Your task to perform on an android device: empty trash in the gmail app Image 0: 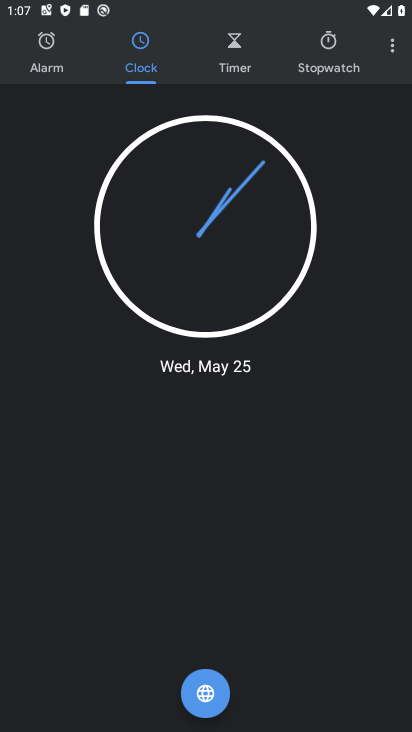
Step 0: press back button
Your task to perform on an android device: empty trash in the gmail app Image 1: 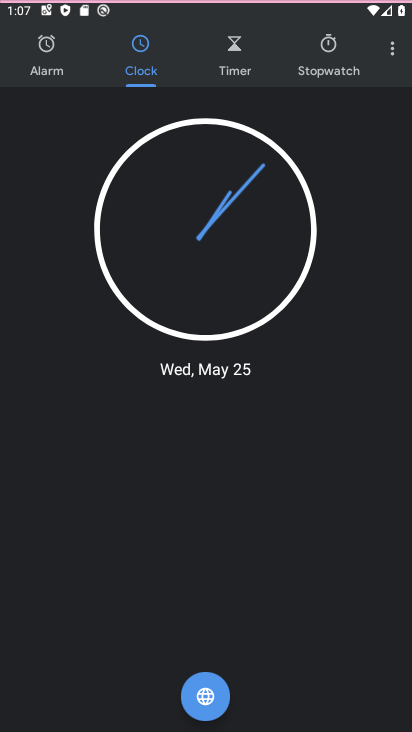
Step 1: press back button
Your task to perform on an android device: empty trash in the gmail app Image 2: 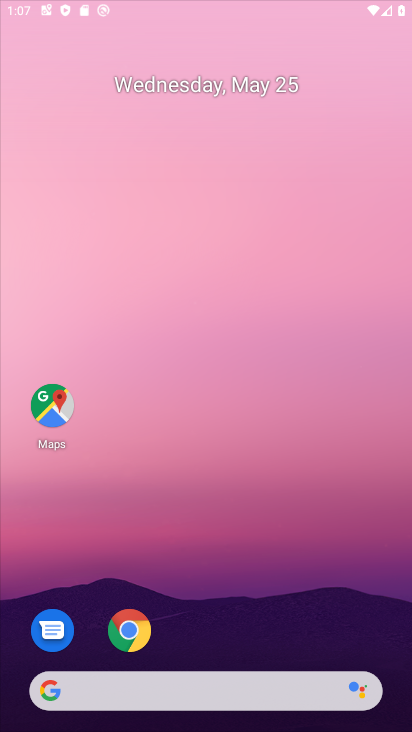
Step 2: press back button
Your task to perform on an android device: empty trash in the gmail app Image 3: 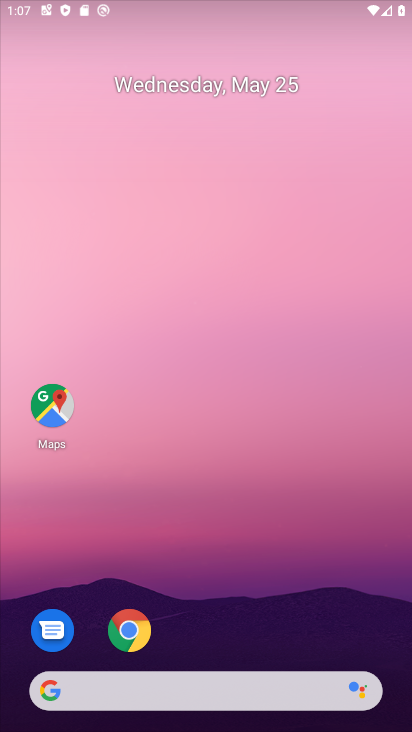
Step 3: press back button
Your task to perform on an android device: empty trash in the gmail app Image 4: 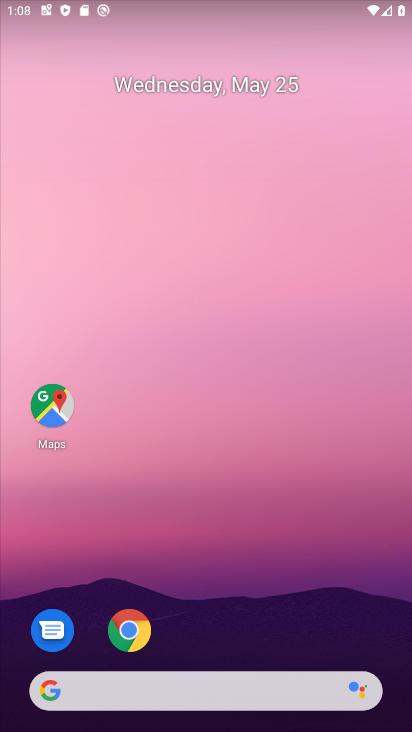
Step 4: drag from (262, 645) to (93, 42)
Your task to perform on an android device: empty trash in the gmail app Image 5: 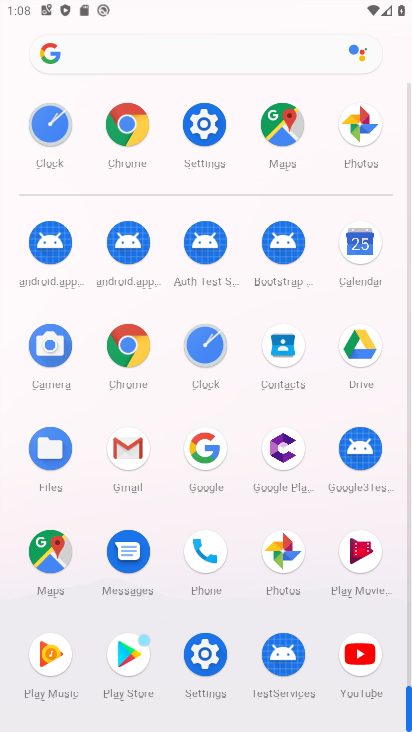
Step 5: click (123, 446)
Your task to perform on an android device: empty trash in the gmail app Image 6: 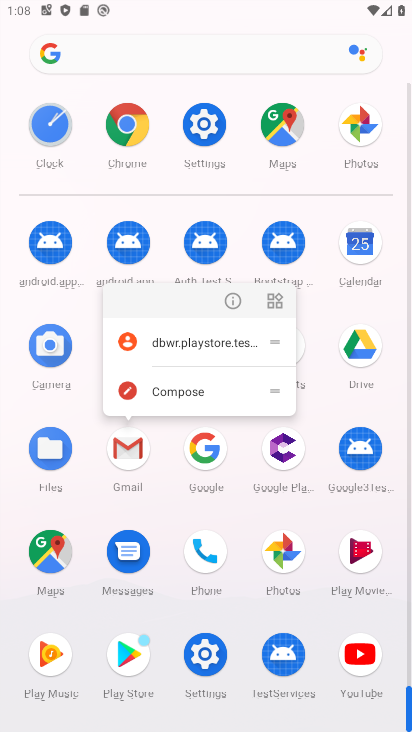
Step 6: click (130, 446)
Your task to perform on an android device: empty trash in the gmail app Image 7: 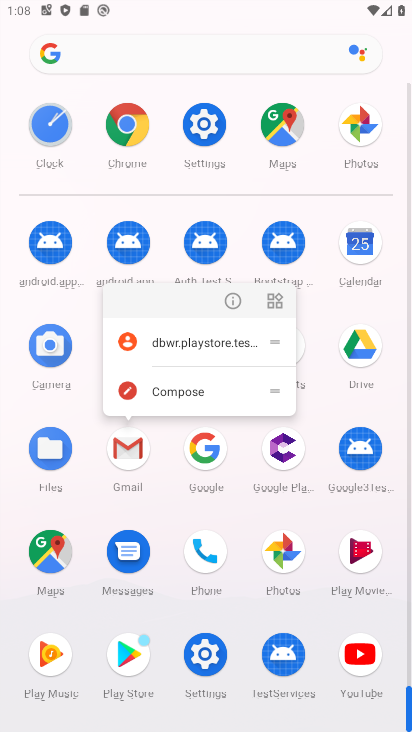
Step 7: click (123, 446)
Your task to perform on an android device: empty trash in the gmail app Image 8: 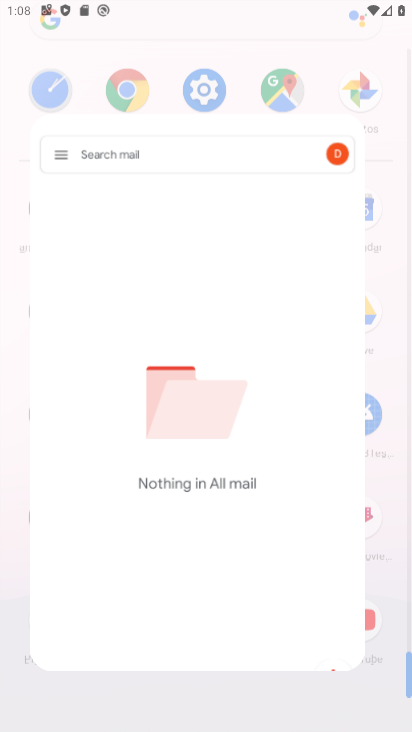
Step 8: click (123, 441)
Your task to perform on an android device: empty trash in the gmail app Image 9: 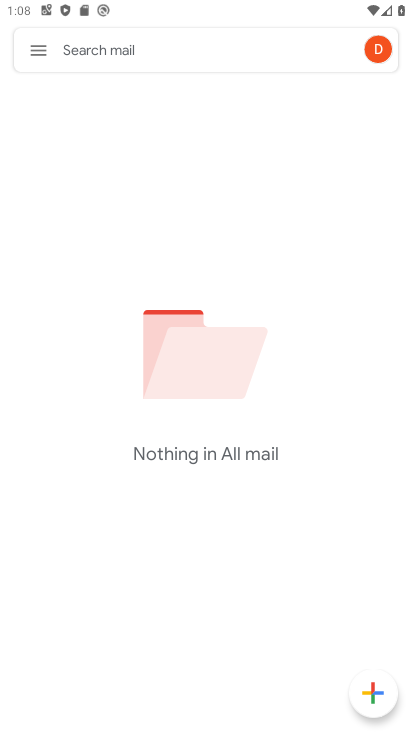
Step 9: click (123, 440)
Your task to perform on an android device: empty trash in the gmail app Image 10: 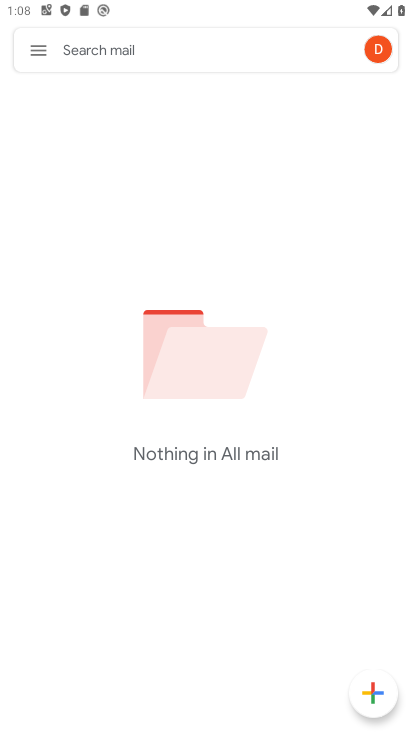
Step 10: drag from (44, 48) to (65, 347)
Your task to perform on an android device: empty trash in the gmail app Image 11: 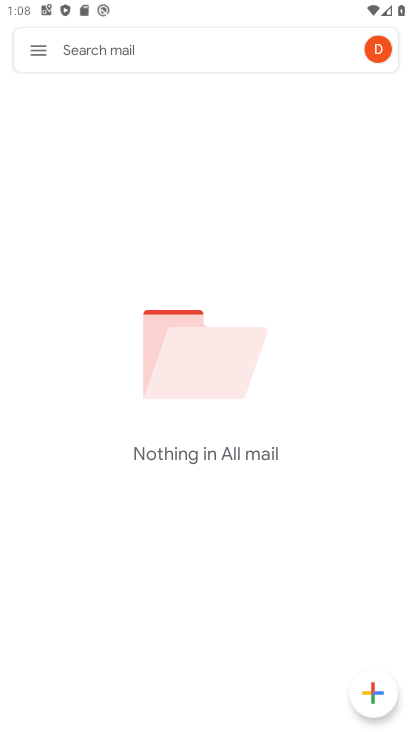
Step 11: click (39, 53)
Your task to perform on an android device: empty trash in the gmail app Image 12: 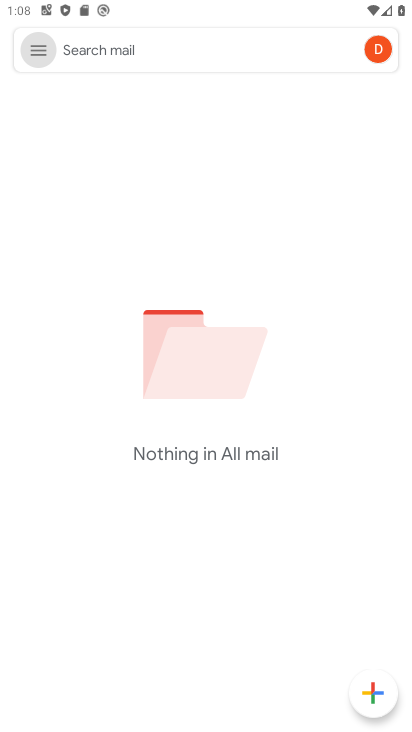
Step 12: click (40, 52)
Your task to perform on an android device: empty trash in the gmail app Image 13: 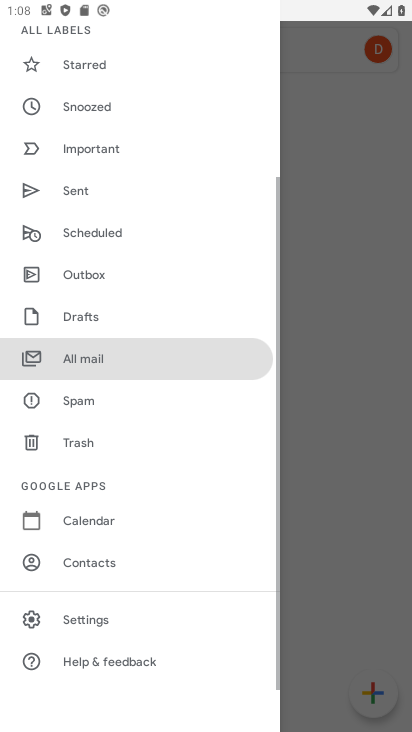
Step 13: click (40, 52)
Your task to perform on an android device: empty trash in the gmail app Image 14: 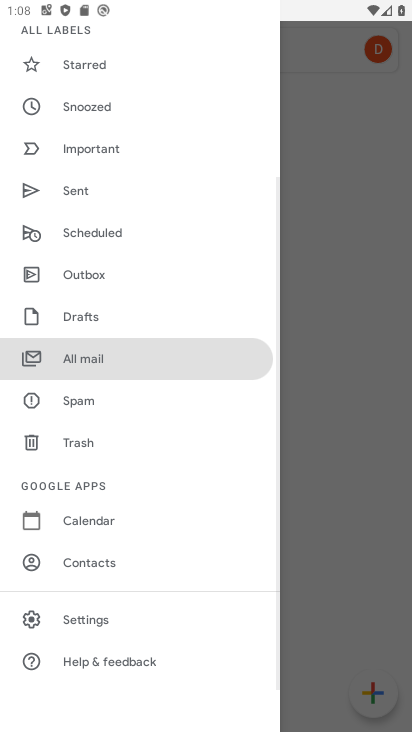
Step 14: drag from (37, 56) to (107, 492)
Your task to perform on an android device: empty trash in the gmail app Image 15: 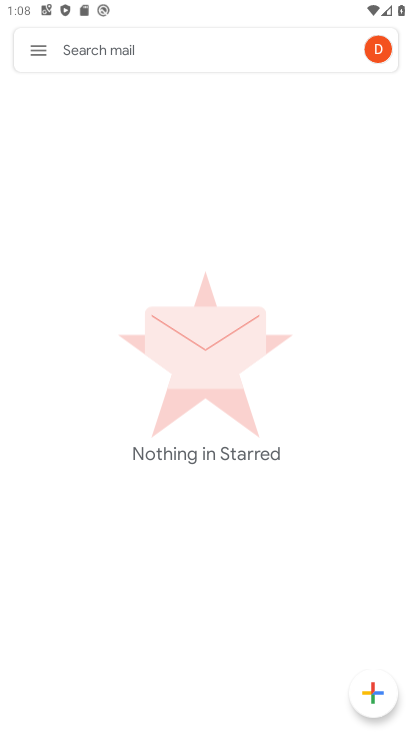
Step 15: click (42, 48)
Your task to perform on an android device: empty trash in the gmail app Image 16: 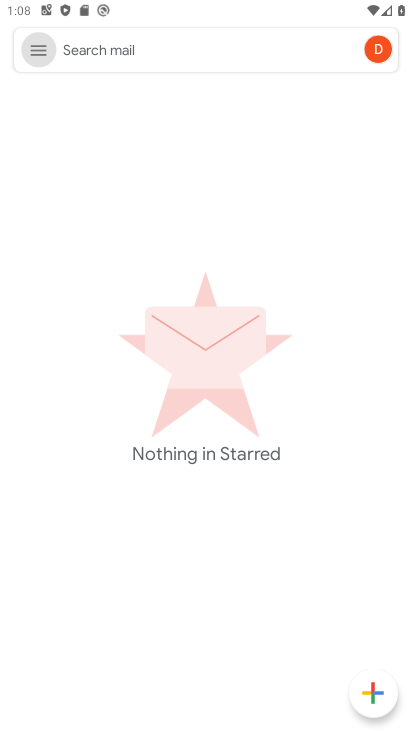
Step 16: click (42, 48)
Your task to perform on an android device: empty trash in the gmail app Image 17: 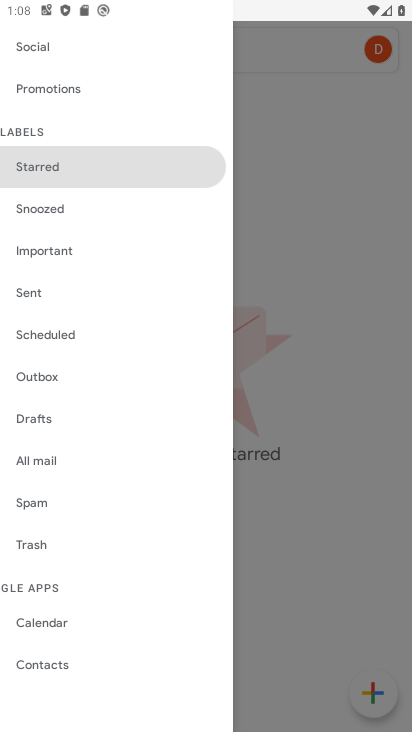
Step 17: drag from (42, 48) to (80, 543)
Your task to perform on an android device: empty trash in the gmail app Image 18: 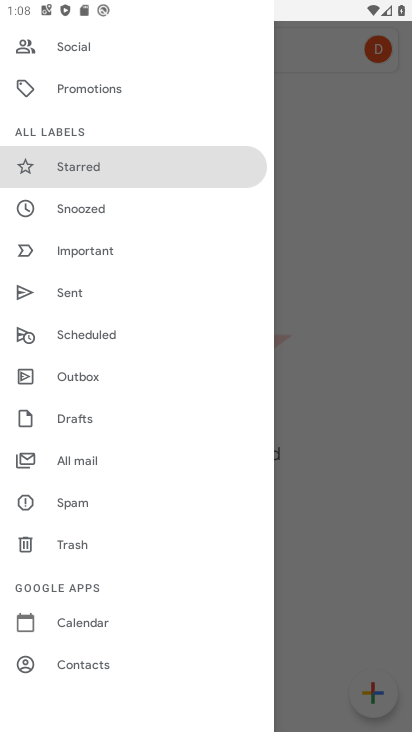
Step 18: click (82, 542)
Your task to perform on an android device: empty trash in the gmail app Image 19: 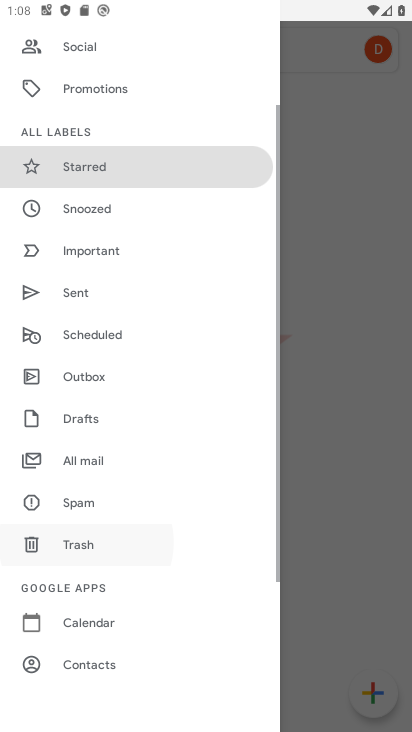
Step 19: click (82, 542)
Your task to perform on an android device: empty trash in the gmail app Image 20: 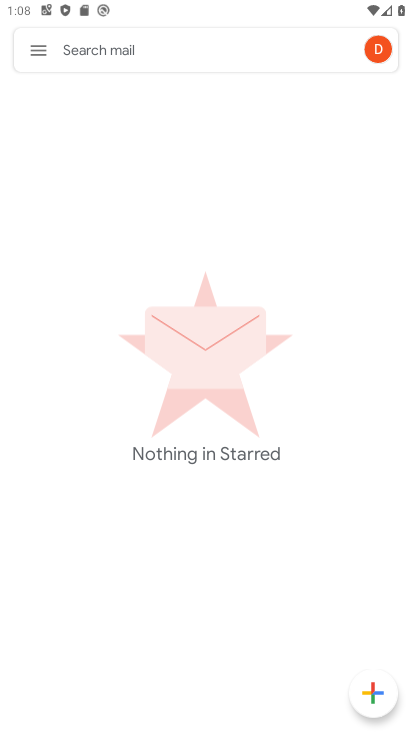
Step 20: click (80, 542)
Your task to perform on an android device: empty trash in the gmail app Image 21: 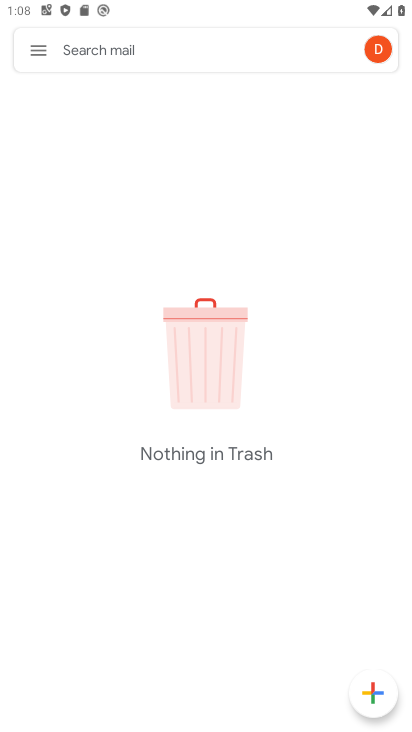
Step 21: click (68, 542)
Your task to perform on an android device: empty trash in the gmail app Image 22: 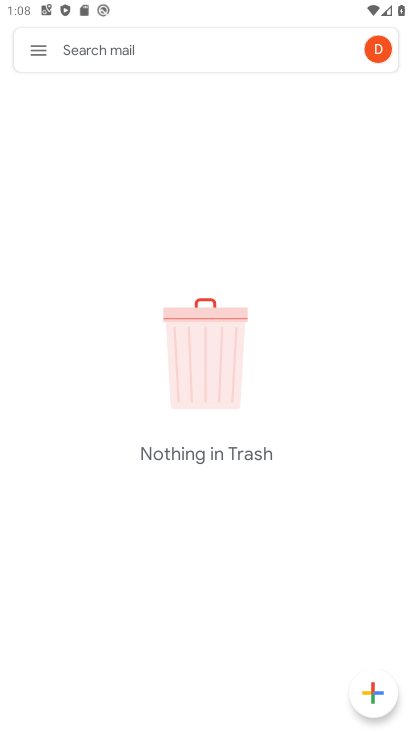
Step 22: click (68, 541)
Your task to perform on an android device: empty trash in the gmail app Image 23: 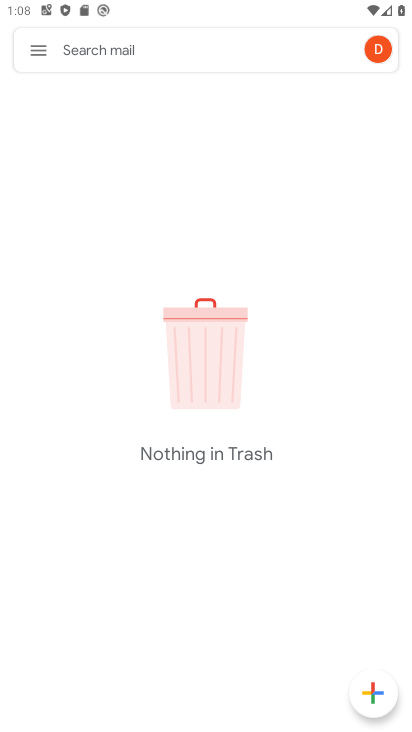
Step 23: click (71, 542)
Your task to perform on an android device: empty trash in the gmail app Image 24: 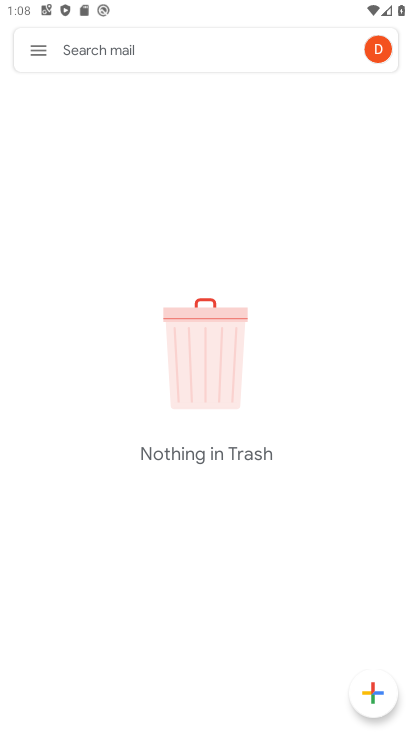
Step 24: task complete